Your task to perform on an android device: turn off location Image 0: 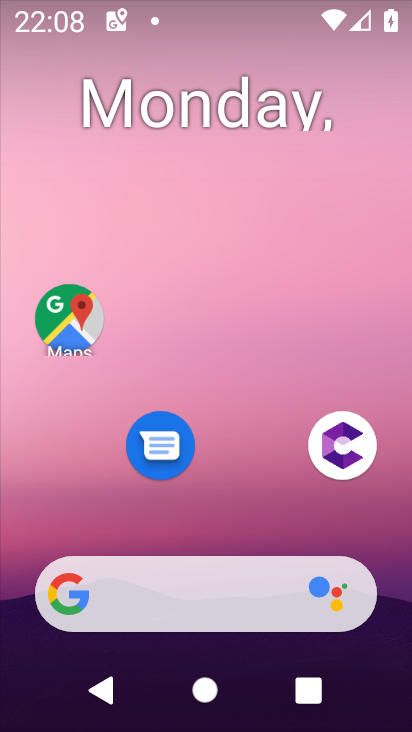
Step 0: click (408, 338)
Your task to perform on an android device: turn off location Image 1: 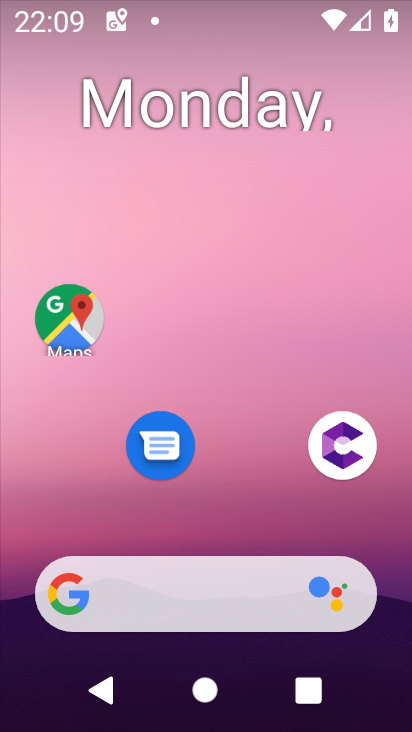
Step 1: drag from (226, 547) to (140, 5)
Your task to perform on an android device: turn off location Image 2: 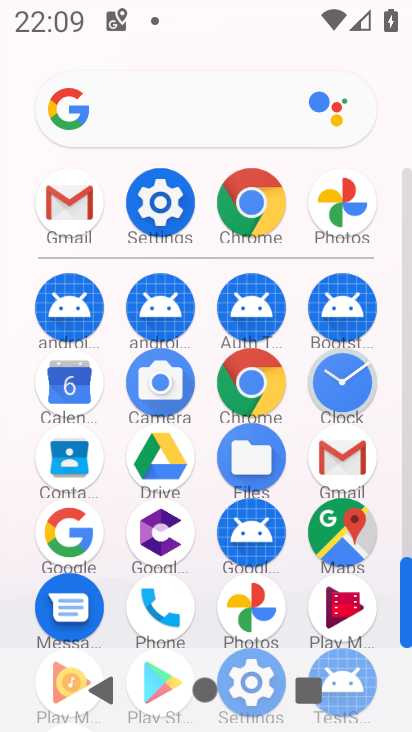
Step 2: click (142, 195)
Your task to perform on an android device: turn off location Image 3: 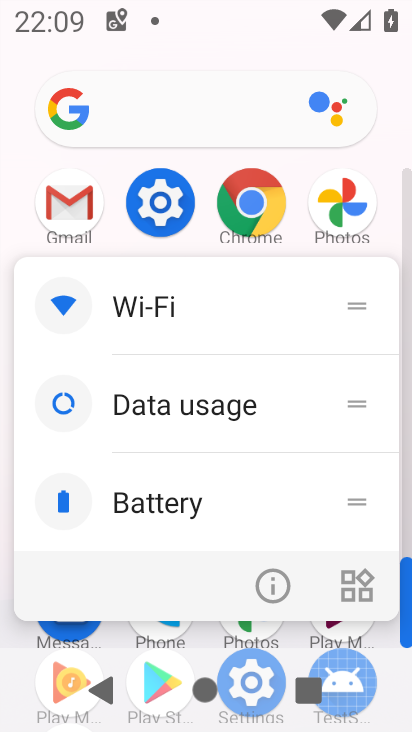
Step 3: click (147, 203)
Your task to perform on an android device: turn off location Image 4: 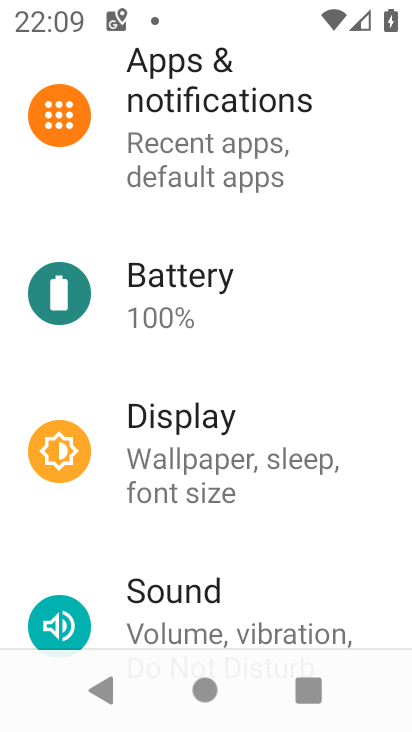
Step 4: drag from (340, 545) to (161, 12)
Your task to perform on an android device: turn off location Image 5: 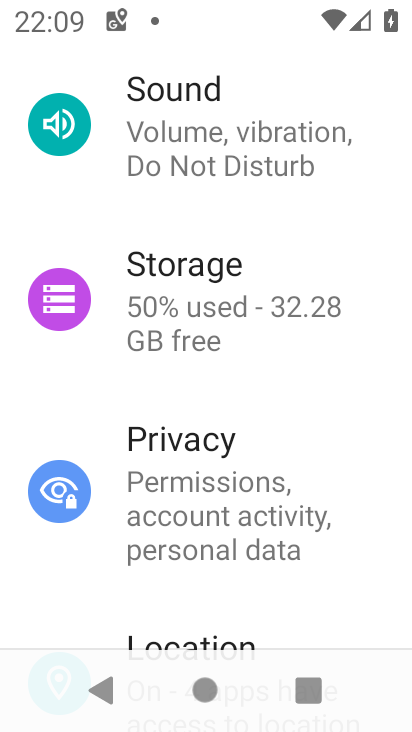
Step 5: drag from (223, 614) to (163, 176)
Your task to perform on an android device: turn off location Image 6: 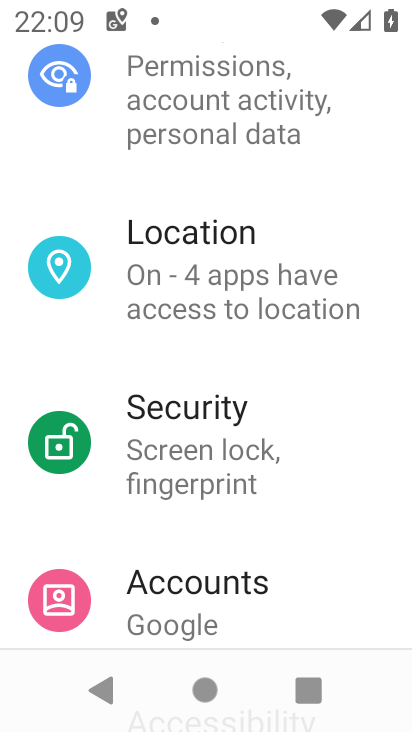
Step 6: click (169, 272)
Your task to perform on an android device: turn off location Image 7: 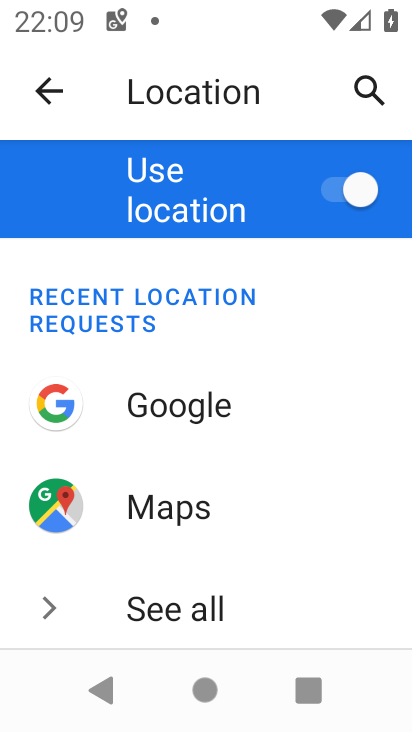
Step 7: click (367, 178)
Your task to perform on an android device: turn off location Image 8: 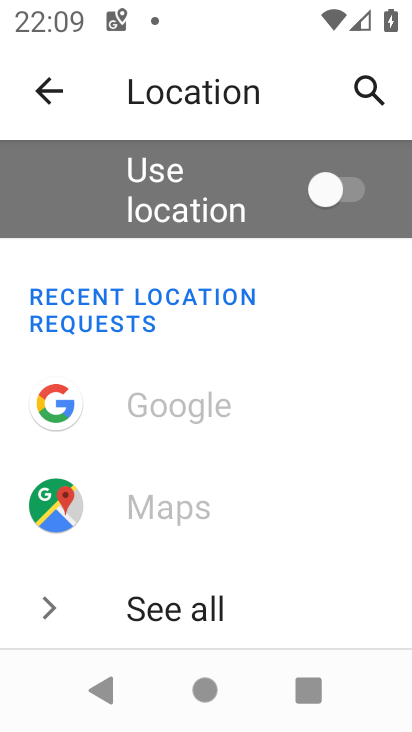
Step 8: task complete